Your task to perform on an android device: turn pop-ups off in chrome Image 0: 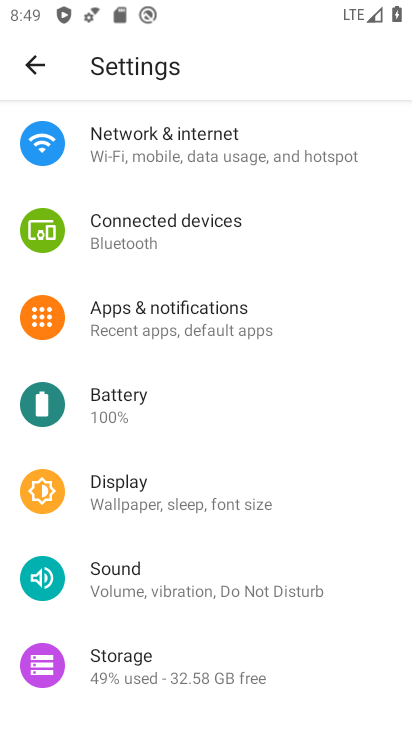
Step 0: press home button
Your task to perform on an android device: turn pop-ups off in chrome Image 1: 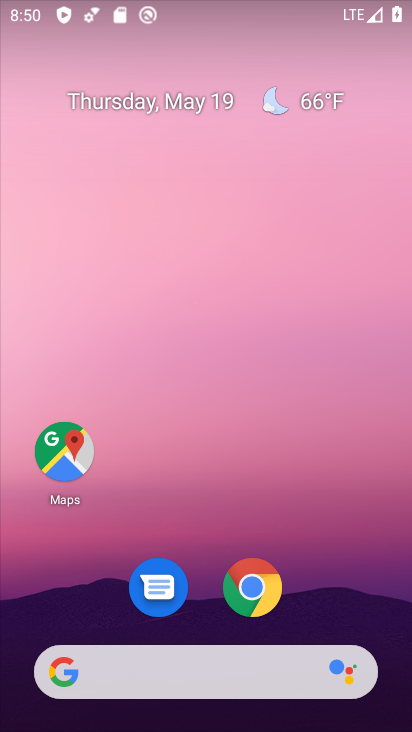
Step 1: drag from (274, 696) to (240, 219)
Your task to perform on an android device: turn pop-ups off in chrome Image 2: 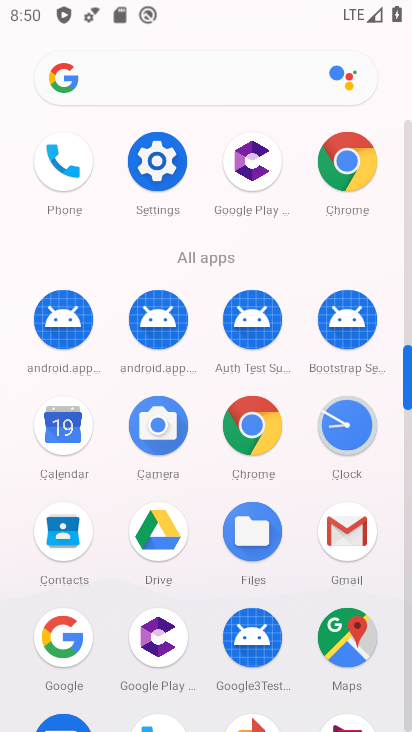
Step 2: click (339, 172)
Your task to perform on an android device: turn pop-ups off in chrome Image 3: 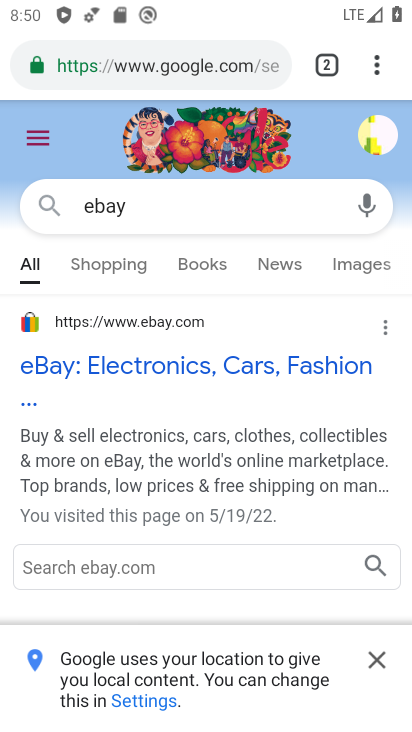
Step 3: drag from (192, 367) to (243, 481)
Your task to perform on an android device: turn pop-ups off in chrome Image 4: 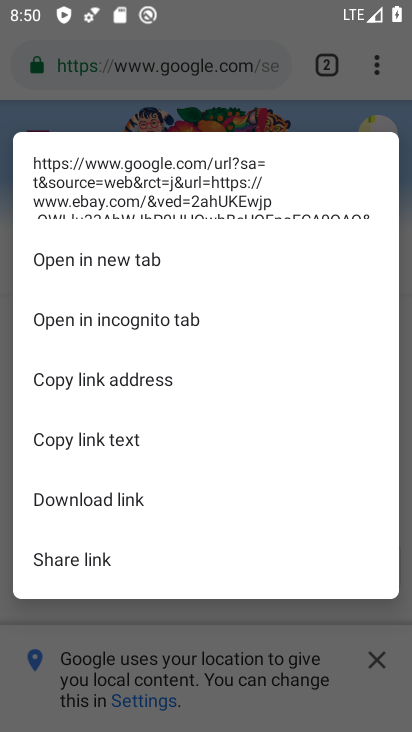
Step 4: press back button
Your task to perform on an android device: turn pop-ups off in chrome Image 5: 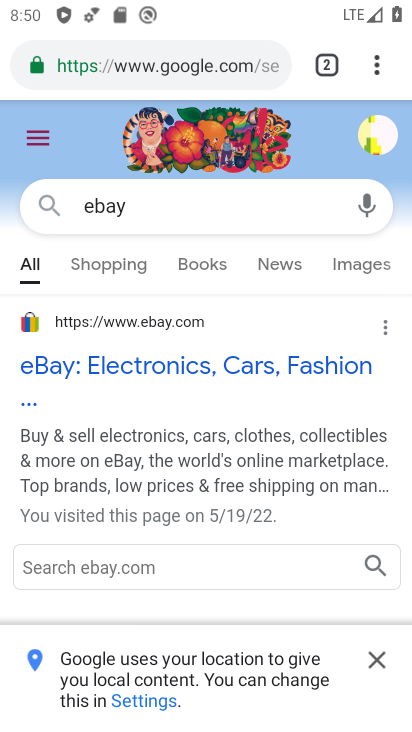
Step 5: click (381, 79)
Your task to perform on an android device: turn pop-ups off in chrome Image 6: 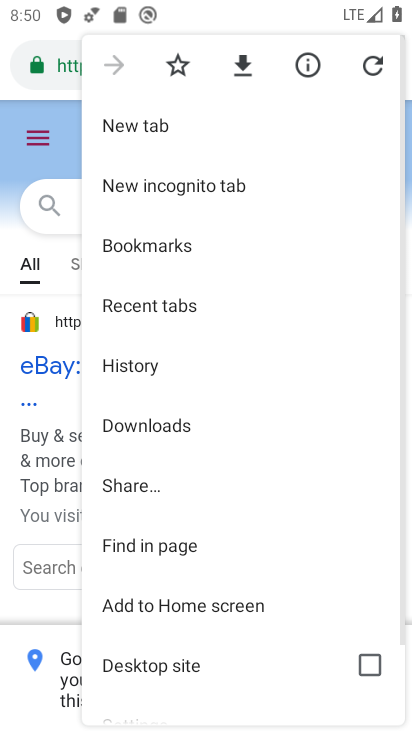
Step 6: drag from (171, 546) to (173, 340)
Your task to perform on an android device: turn pop-ups off in chrome Image 7: 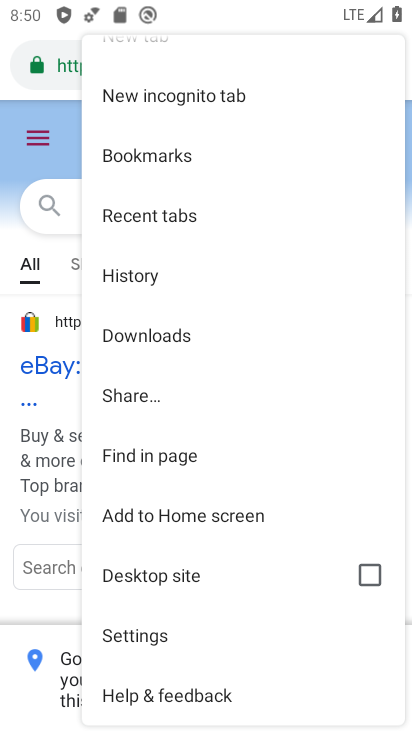
Step 7: click (206, 625)
Your task to perform on an android device: turn pop-ups off in chrome Image 8: 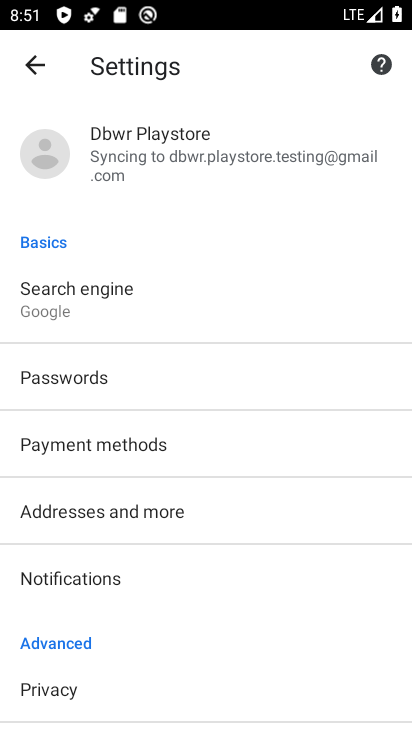
Step 8: drag from (100, 610) to (104, 369)
Your task to perform on an android device: turn pop-ups off in chrome Image 9: 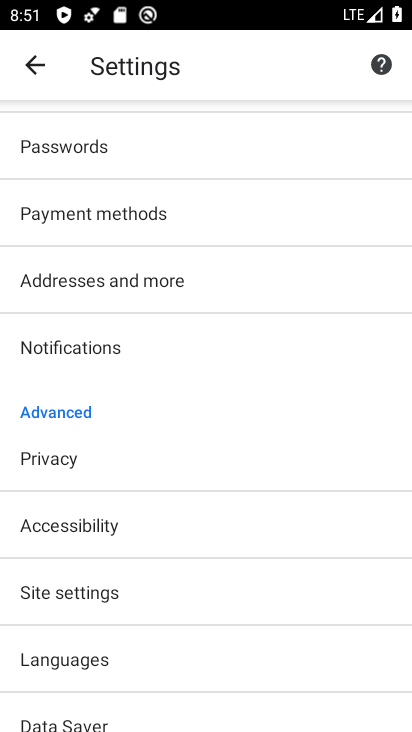
Step 9: click (102, 584)
Your task to perform on an android device: turn pop-ups off in chrome Image 10: 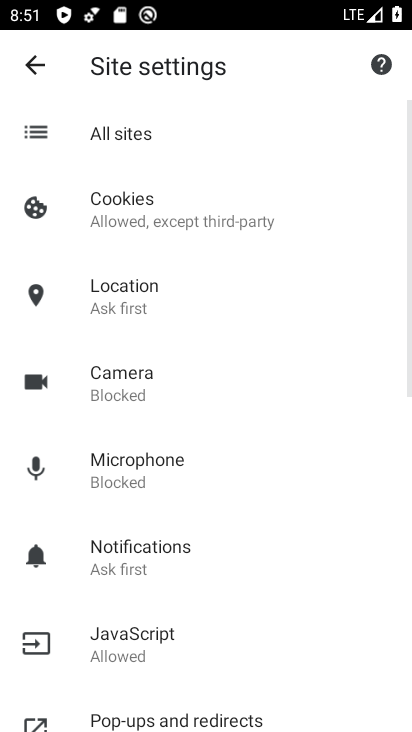
Step 10: click (143, 705)
Your task to perform on an android device: turn pop-ups off in chrome Image 11: 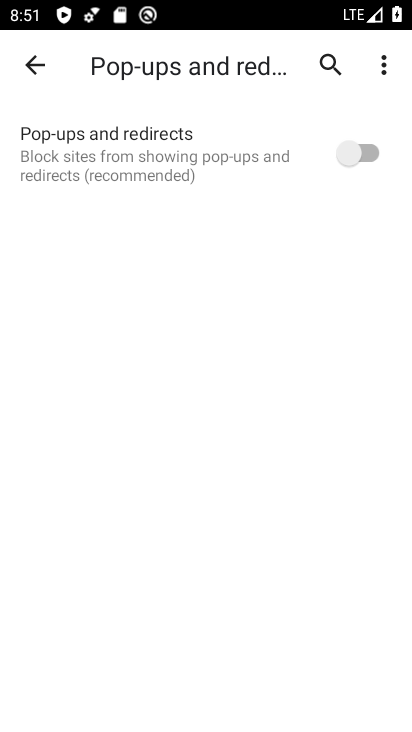
Step 11: click (352, 164)
Your task to perform on an android device: turn pop-ups off in chrome Image 12: 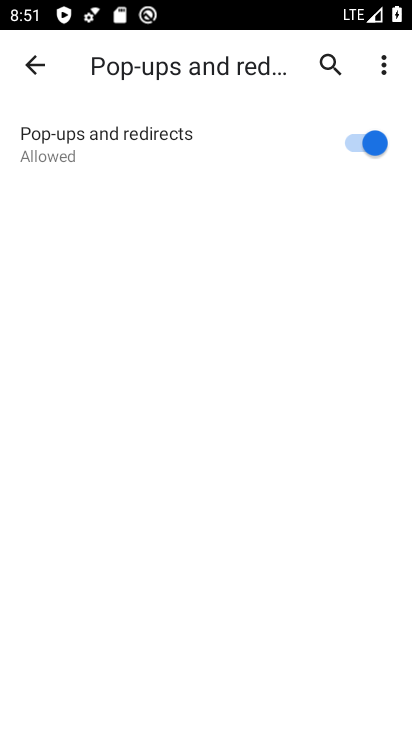
Step 12: click (352, 167)
Your task to perform on an android device: turn pop-ups off in chrome Image 13: 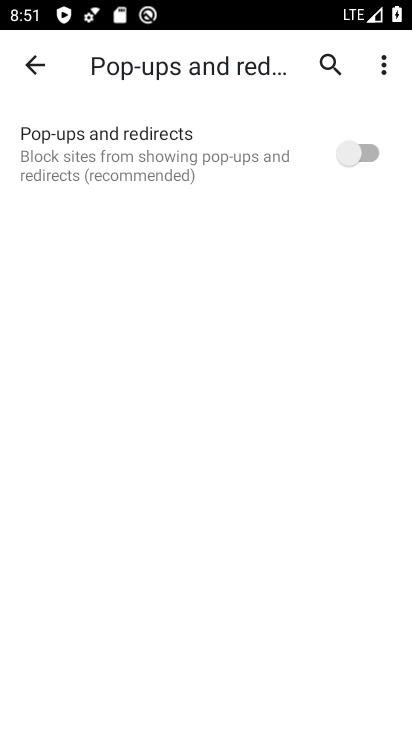
Step 13: task complete